Your task to perform on an android device: Check the news Image 0: 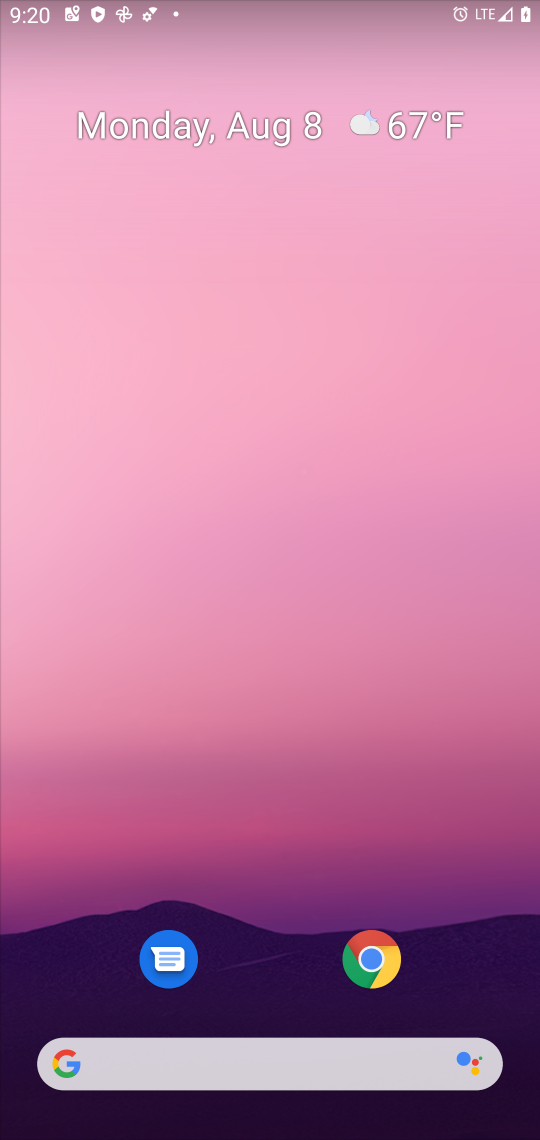
Step 0: drag from (515, 997) to (234, 53)
Your task to perform on an android device: Check the news Image 1: 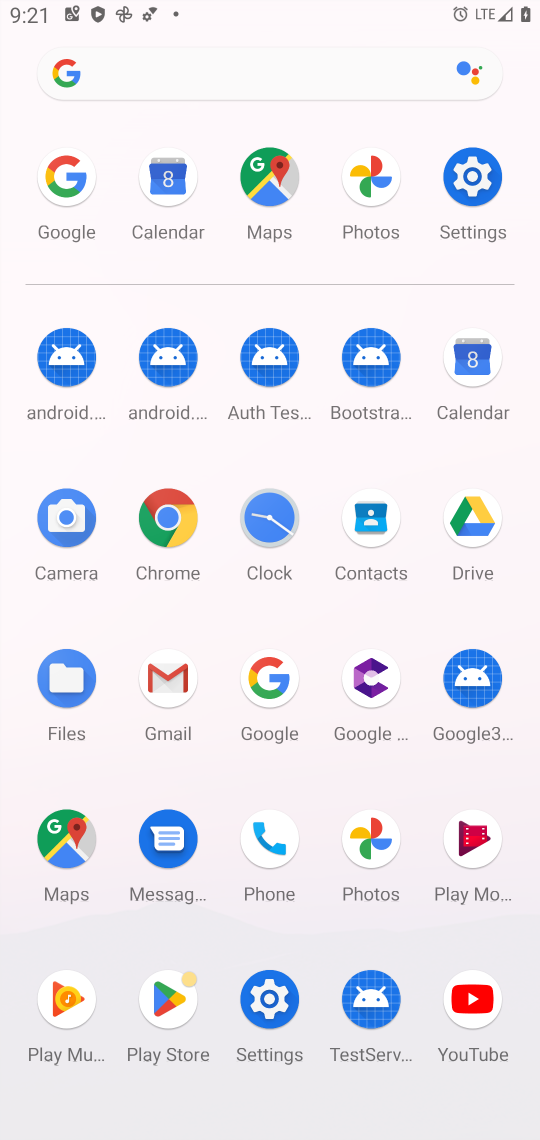
Step 1: click (273, 705)
Your task to perform on an android device: Check the news Image 2: 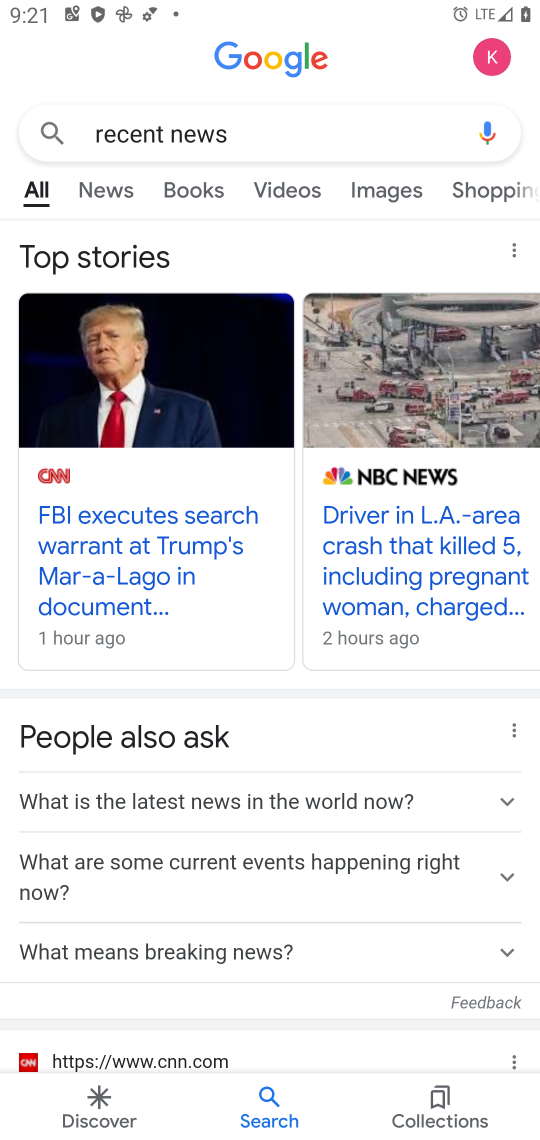
Step 2: press back button
Your task to perform on an android device: Check the news Image 3: 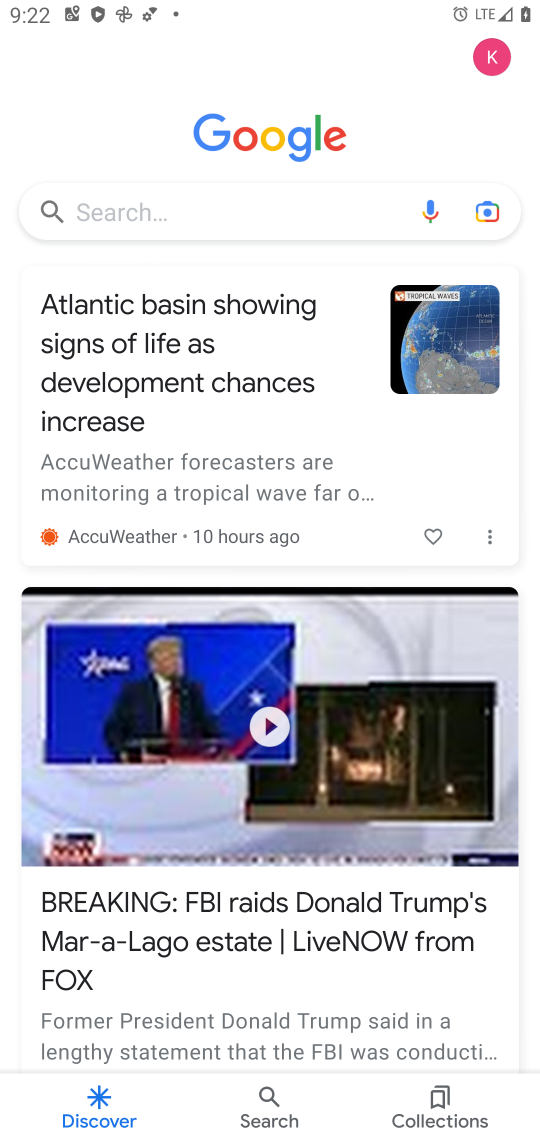
Step 3: click (152, 199)
Your task to perform on an android device: Check the news Image 4: 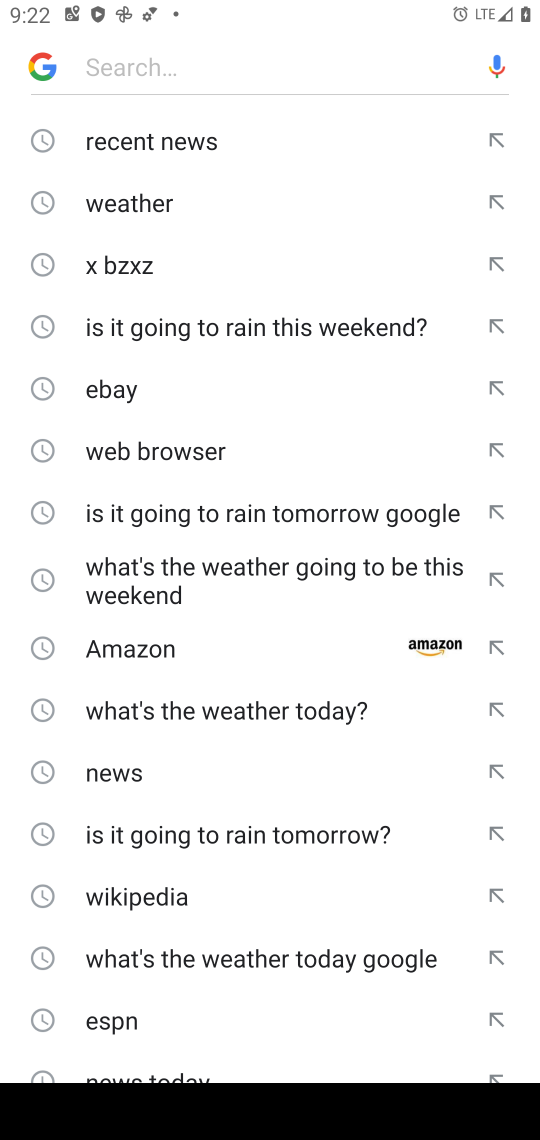
Step 4: drag from (153, 982) to (179, 280)
Your task to perform on an android device: Check the news Image 5: 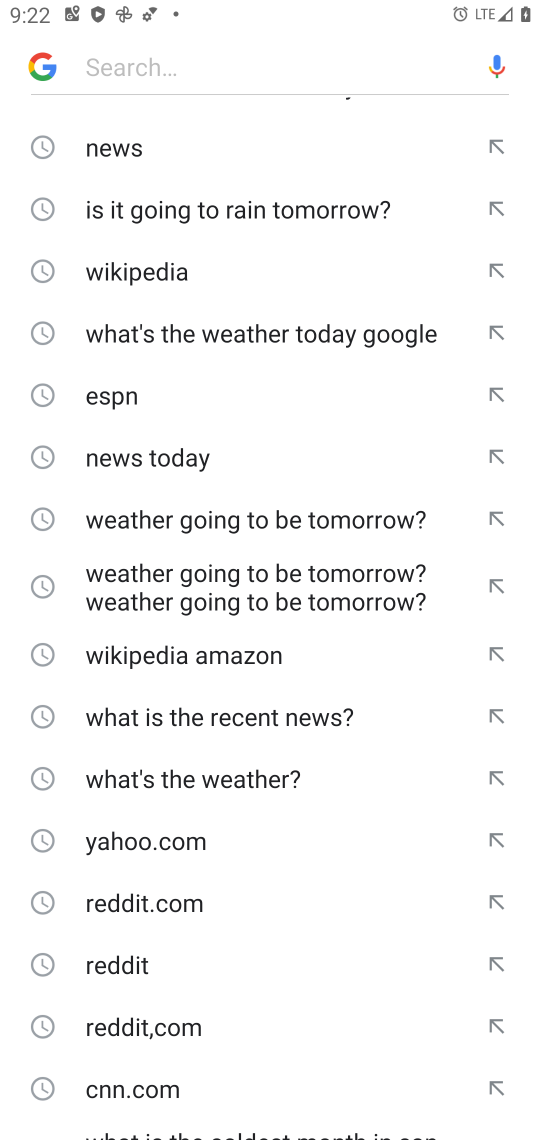
Step 5: drag from (177, 1062) to (256, 504)
Your task to perform on an android device: Check the news Image 6: 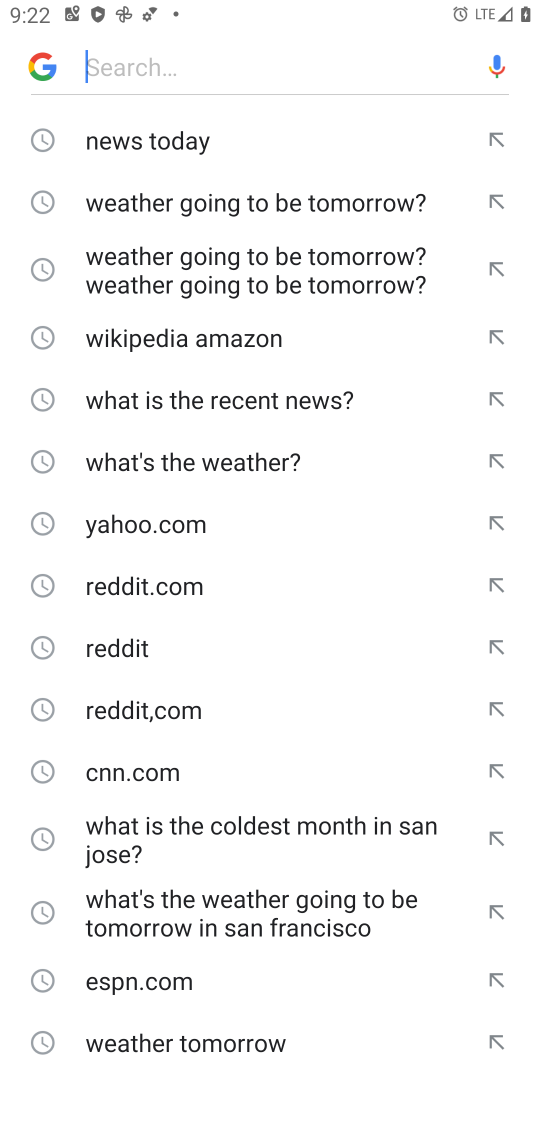
Step 6: type "Check the news"
Your task to perform on an android device: Check the news Image 7: 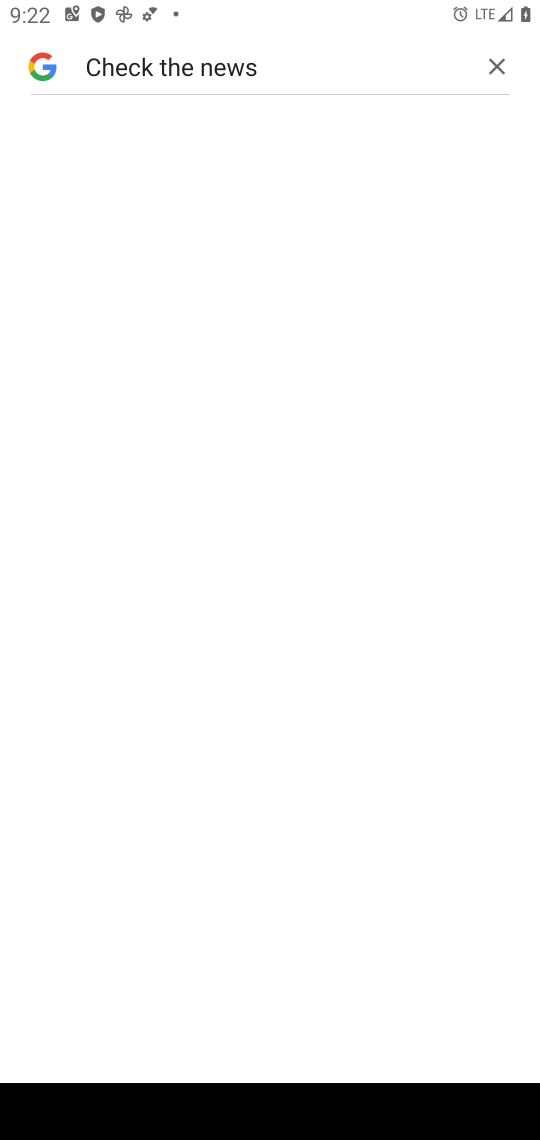
Step 7: task complete